Your task to perform on an android device: change text size in settings app Image 0: 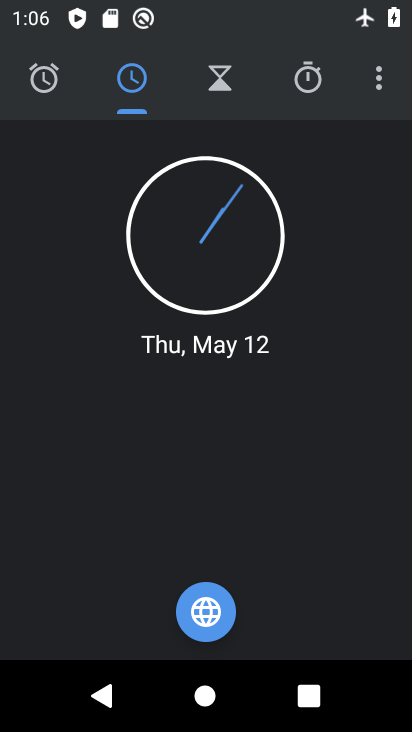
Step 0: press home button
Your task to perform on an android device: change text size in settings app Image 1: 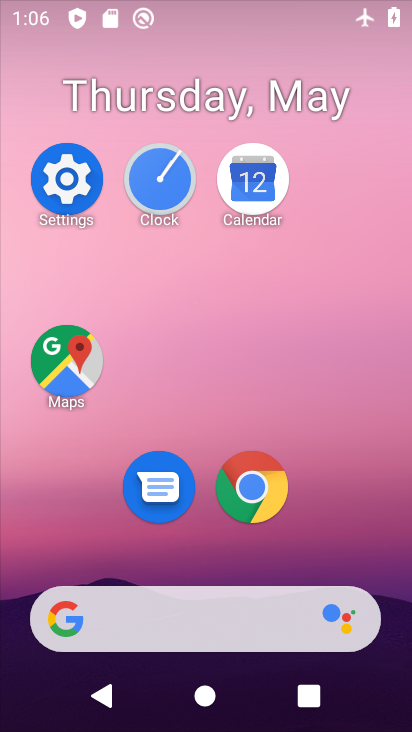
Step 1: click (65, 172)
Your task to perform on an android device: change text size in settings app Image 2: 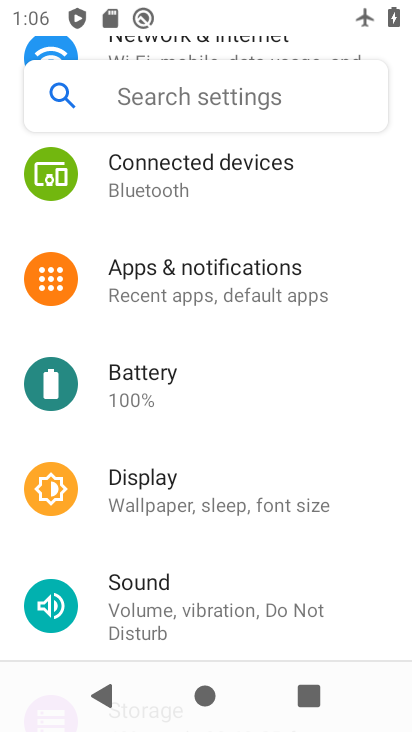
Step 2: click (287, 495)
Your task to perform on an android device: change text size in settings app Image 3: 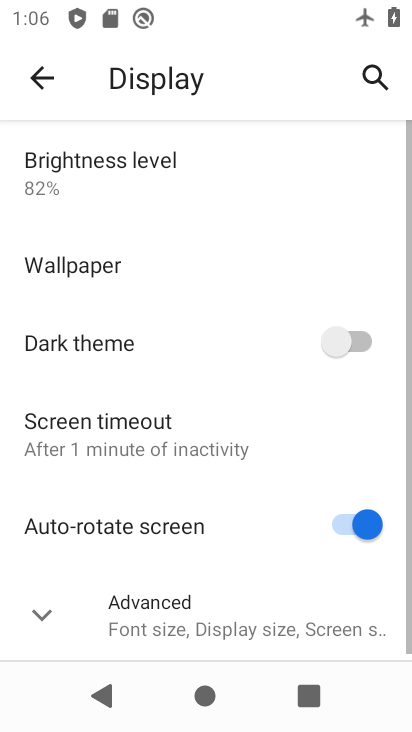
Step 3: click (181, 608)
Your task to perform on an android device: change text size in settings app Image 4: 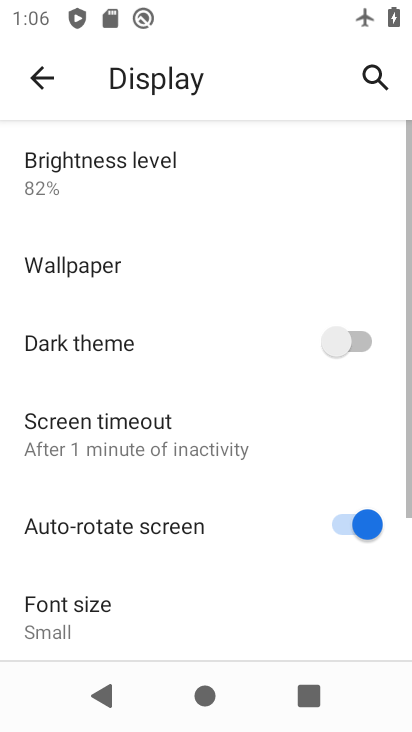
Step 4: click (181, 608)
Your task to perform on an android device: change text size in settings app Image 5: 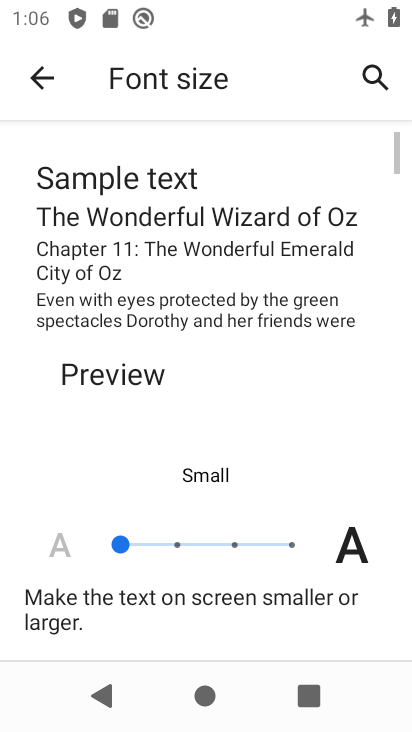
Step 5: click (174, 549)
Your task to perform on an android device: change text size in settings app Image 6: 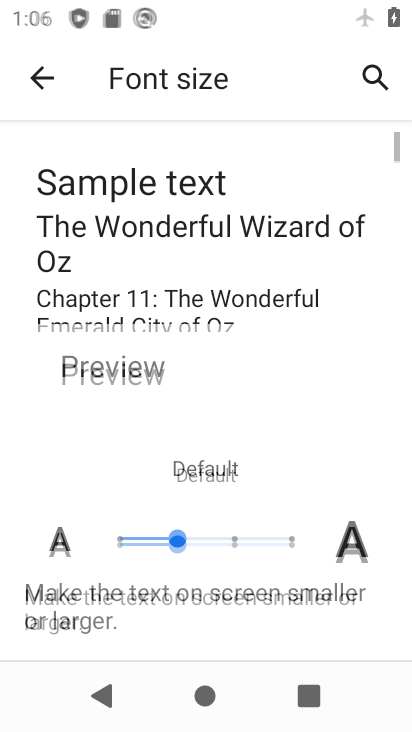
Step 6: task complete